Your task to perform on an android device: Open Google Chrome and open the bookmarks view Image 0: 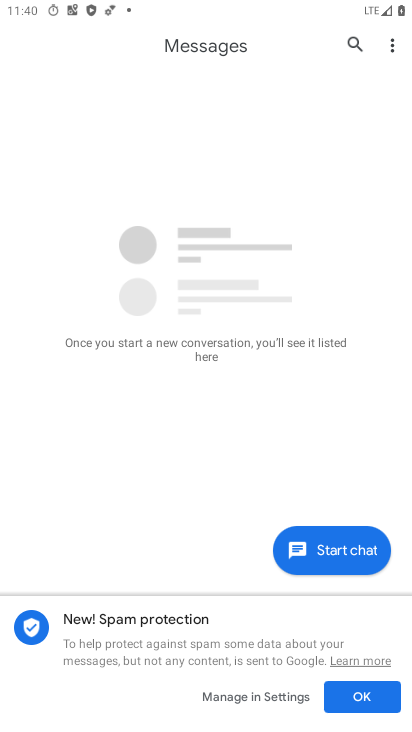
Step 0: press back button
Your task to perform on an android device: Open Google Chrome and open the bookmarks view Image 1: 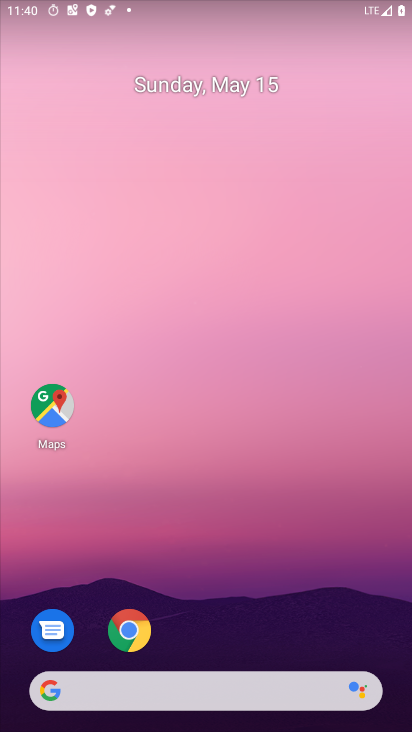
Step 1: click (123, 624)
Your task to perform on an android device: Open Google Chrome and open the bookmarks view Image 2: 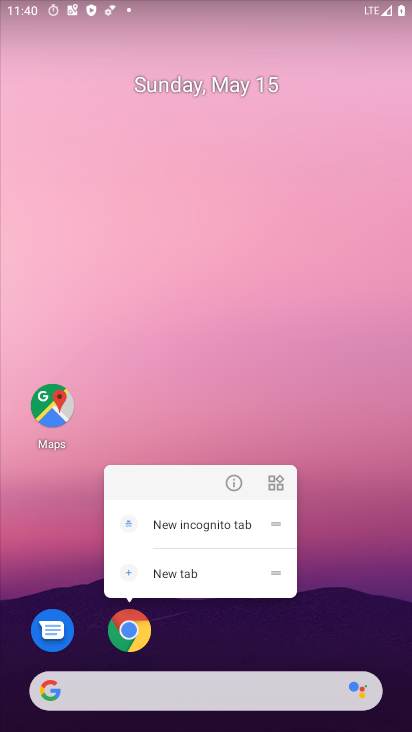
Step 2: click (135, 635)
Your task to perform on an android device: Open Google Chrome and open the bookmarks view Image 3: 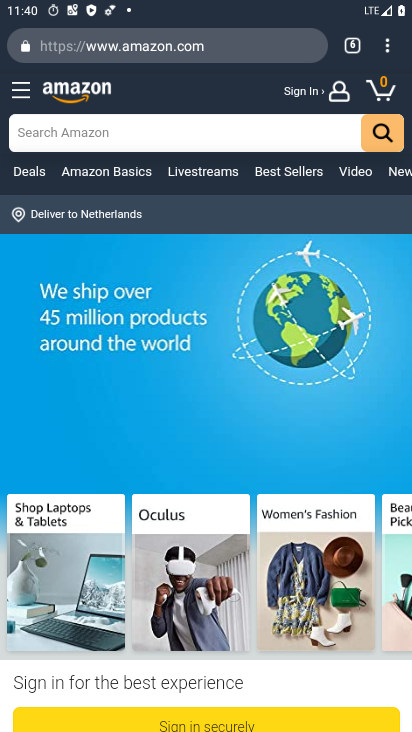
Step 3: click (389, 39)
Your task to perform on an android device: Open Google Chrome and open the bookmarks view Image 4: 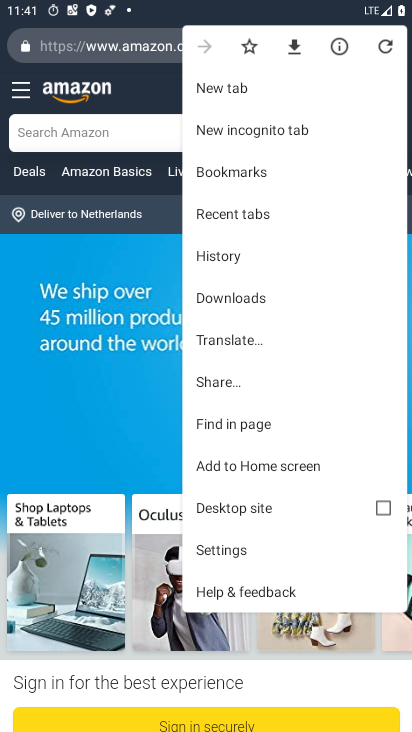
Step 4: click (228, 177)
Your task to perform on an android device: Open Google Chrome and open the bookmarks view Image 5: 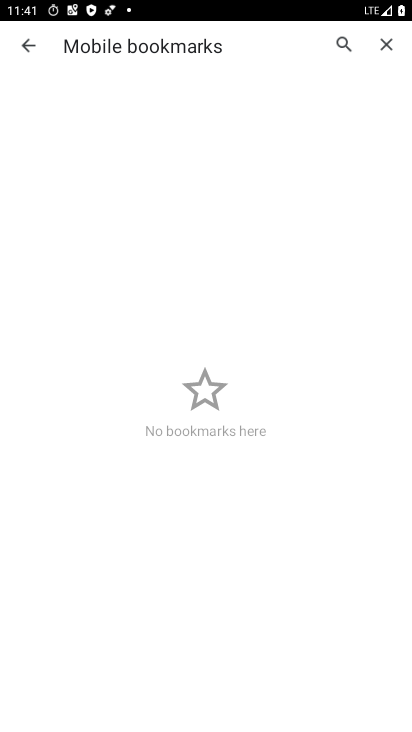
Step 5: task complete